Your task to perform on an android device: Open Youtube and go to the subscriptions tab Image 0: 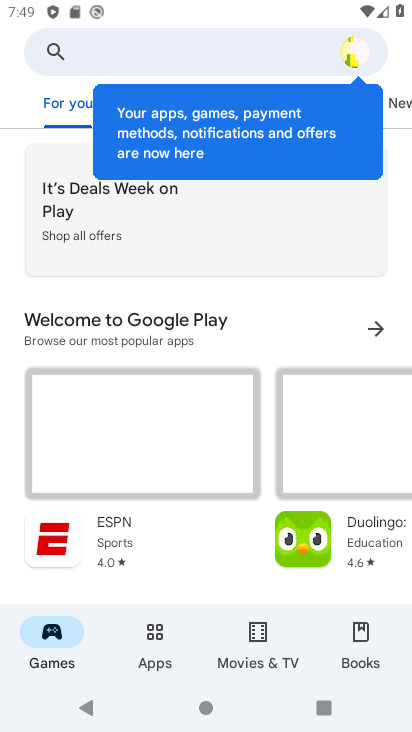
Step 0: press home button
Your task to perform on an android device: Open Youtube and go to the subscriptions tab Image 1: 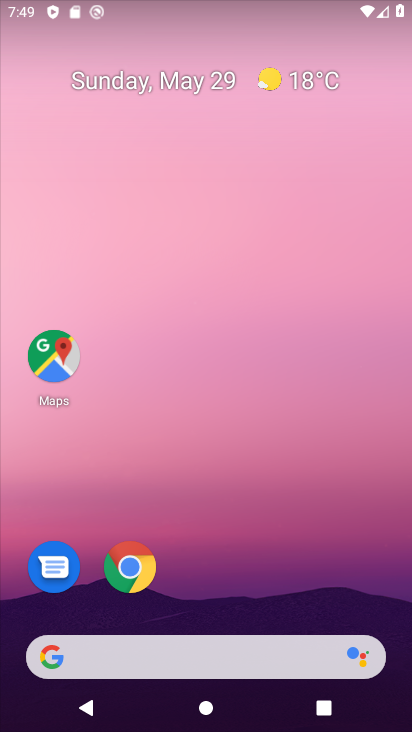
Step 1: drag from (388, 703) to (335, 59)
Your task to perform on an android device: Open Youtube and go to the subscriptions tab Image 2: 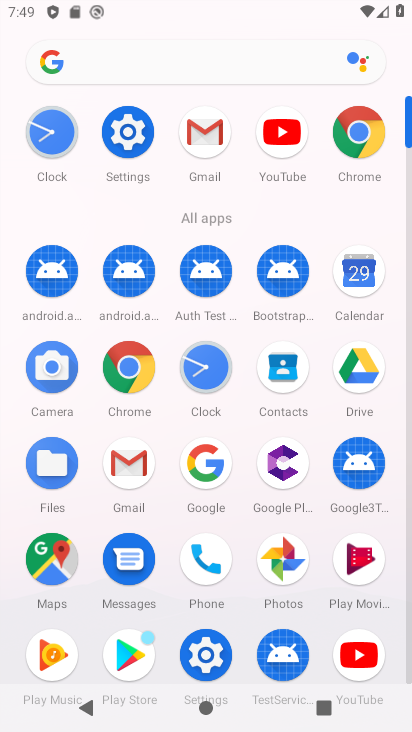
Step 2: click (269, 144)
Your task to perform on an android device: Open Youtube and go to the subscriptions tab Image 3: 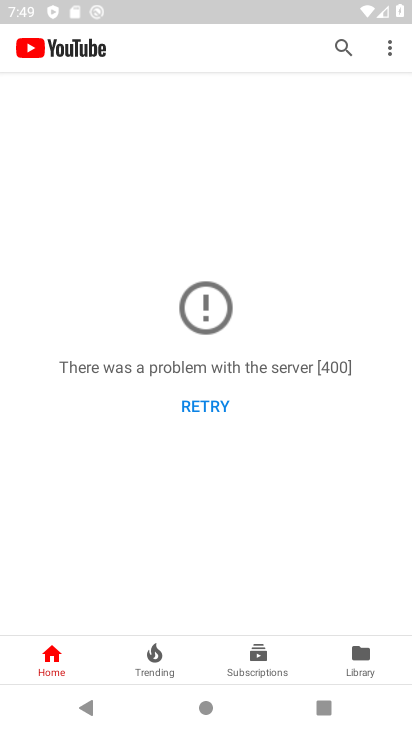
Step 3: click (388, 44)
Your task to perform on an android device: Open Youtube and go to the subscriptions tab Image 4: 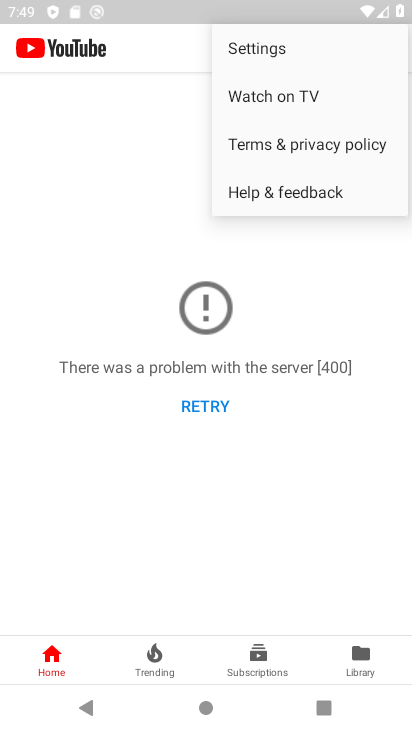
Step 4: click (256, 49)
Your task to perform on an android device: Open Youtube and go to the subscriptions tab Image 5: 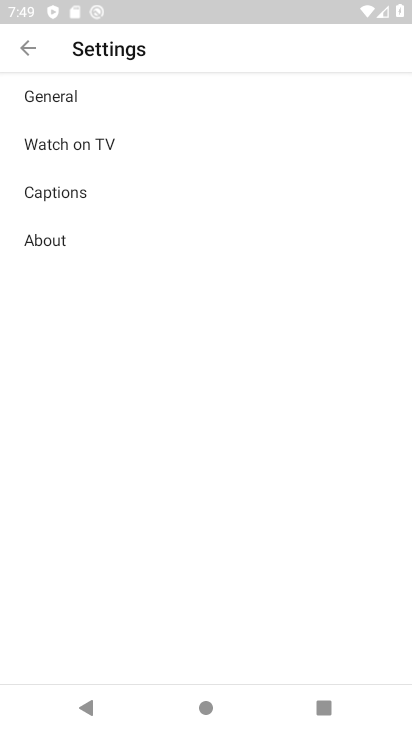
Step 5: click (19, 50)
Your task to perform on an android device: Open Youtube and go to the subscriptions tab Image 6: 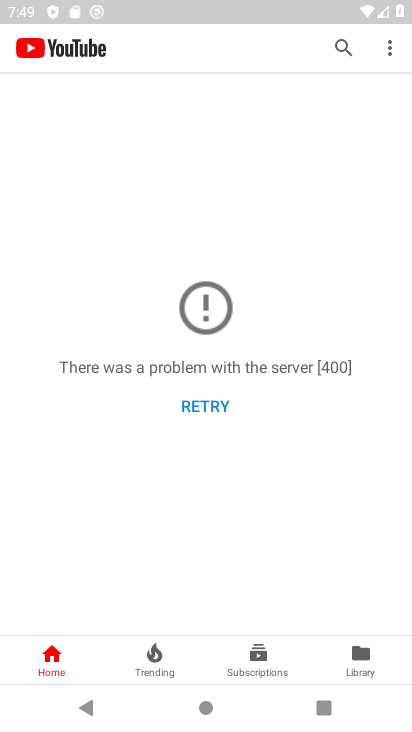
Step 6: task complete